Your task to perform on an android device: Open internet settings Image 0: 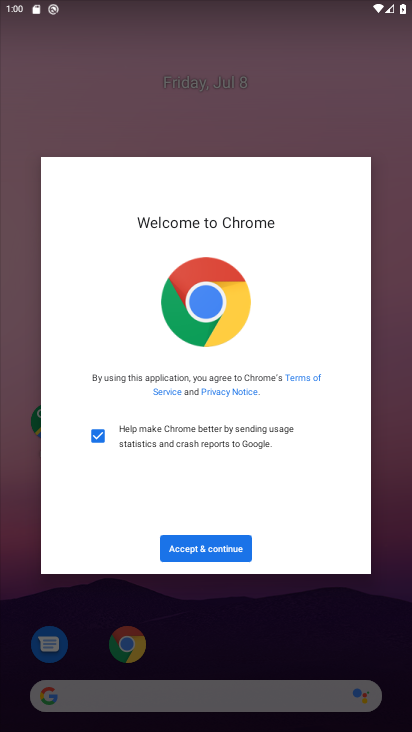
Step 0: press home button
Your task to perform on an android device: Open internet settings Image 1: 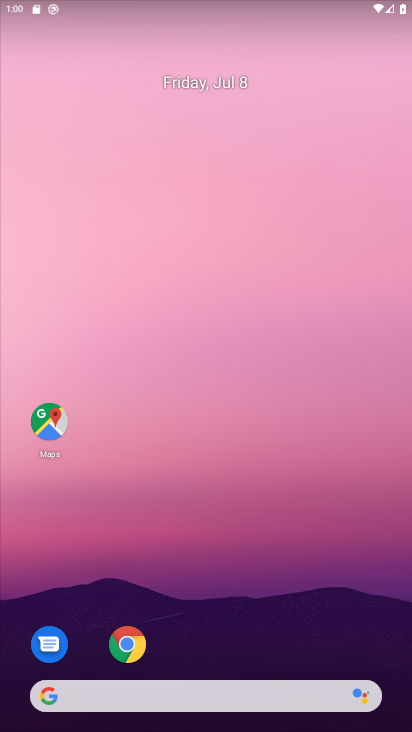
Step 1: drag from (255, 655) to (340, 41)
Your task to perform on an android device: Open internet settings Image 2: 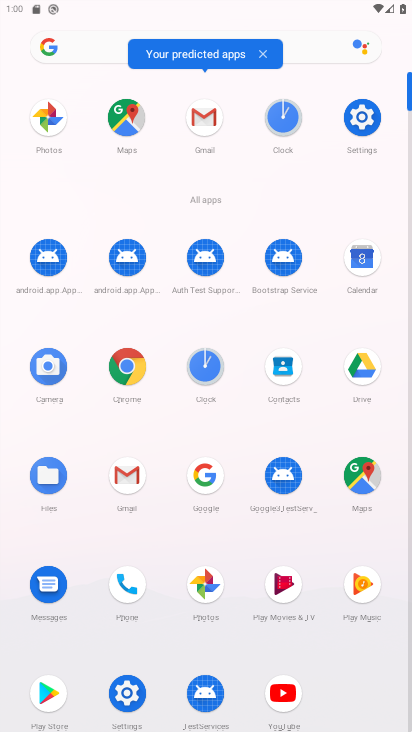
Step 2: click (126, 713)
Your task to perform on an android device: Open internet settings Image 3: 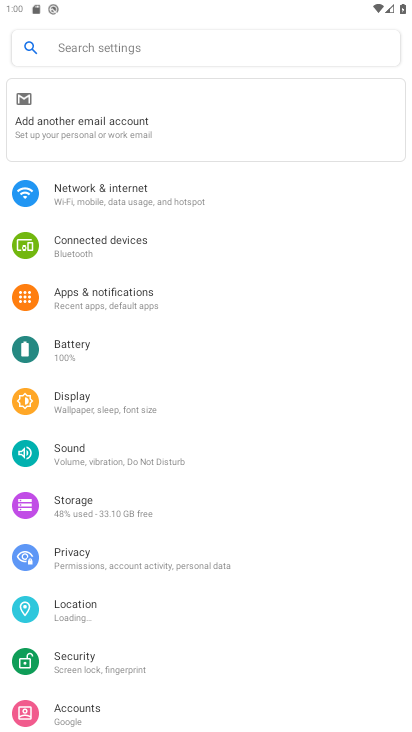
Step 3: click (141, 190)
Your task to perform on an android device: Open internet settings Image 4: 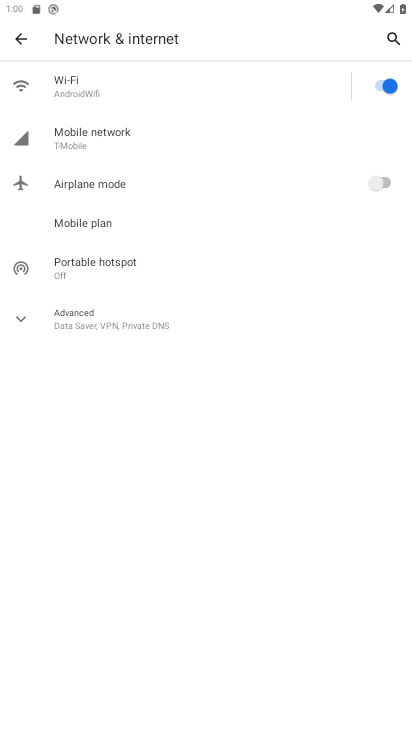
Step 4: click (140, 146)
Your task to perform on an android device: Open internet settings Image 5: 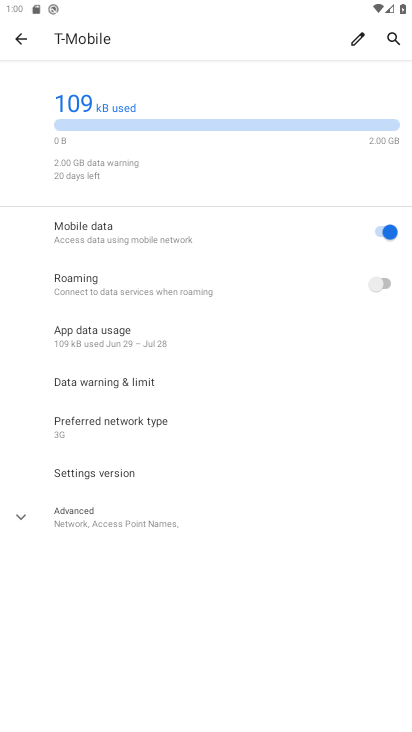
Step 5: task complete